Your task to perform on an android device: add a contact Image 0: 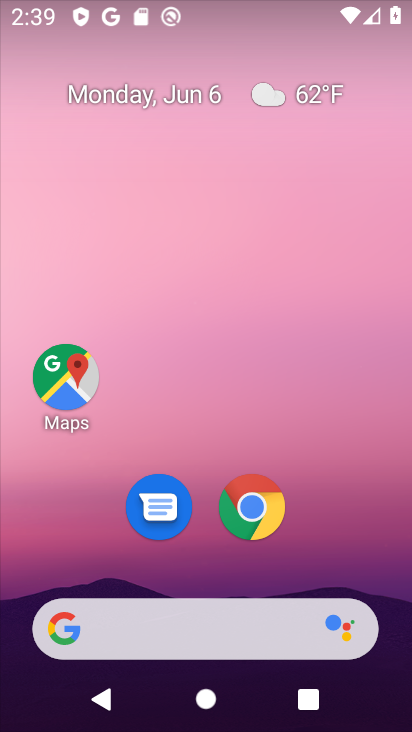
Step 0: drag from (387, 655) to (378, 111)
Your task to perform on an android device: add a contact Image 1: 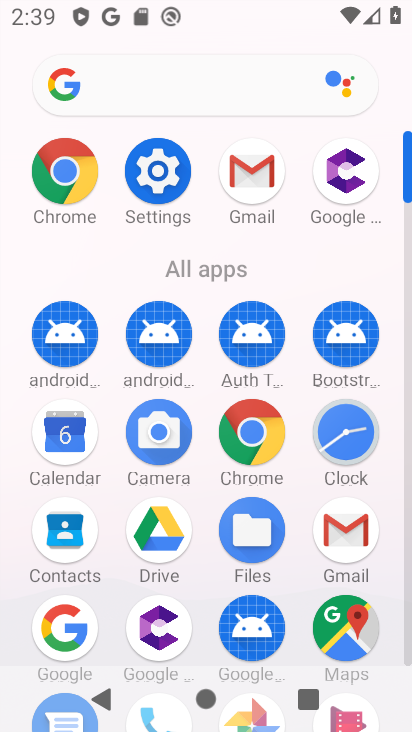
Step 1: click (68, 537)
Your task to perform on an android device: add a contact Image 2: 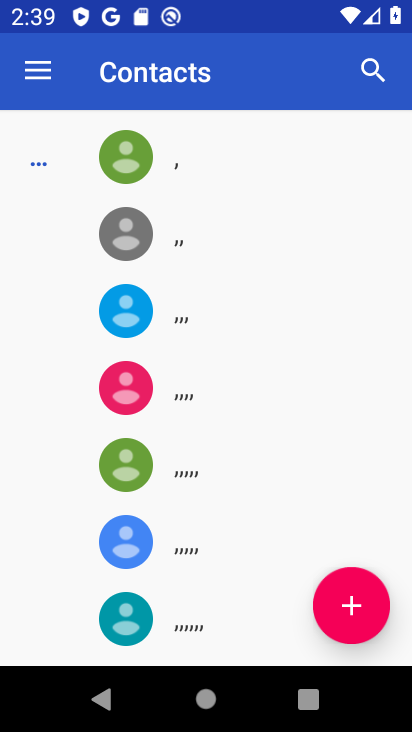
Step 2: click (338, 590)
Your task to perform on an android device: add a contact Image 3: 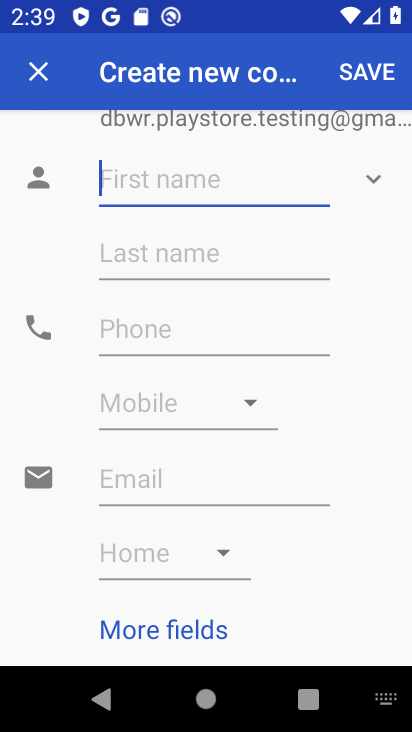
Step 3: type "jnjjbjbj"
Your task to perform on an android device: add a contact Image 4: 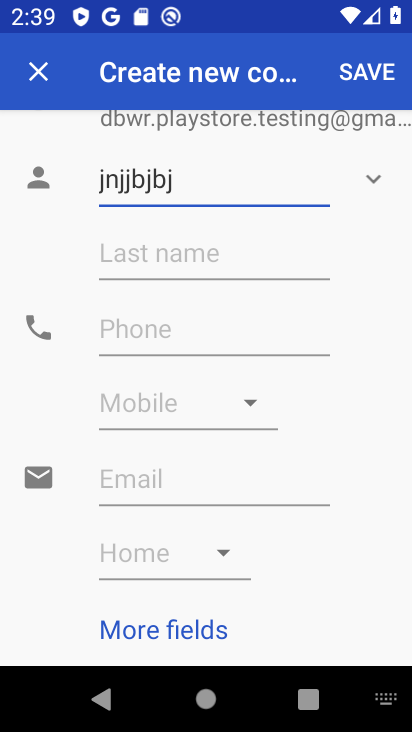
Step 4: click (224, 262)
Your task to perform on an android device: add a contact Image 5: 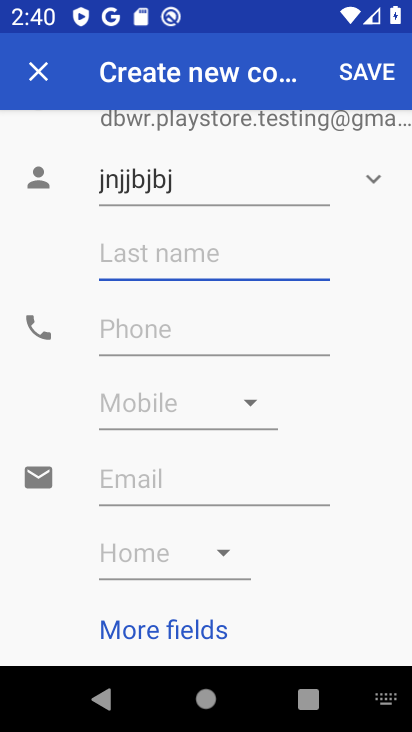
Step 5: type "jgbhb hj"
Your task to perform on an android device: add a contact Image 6: 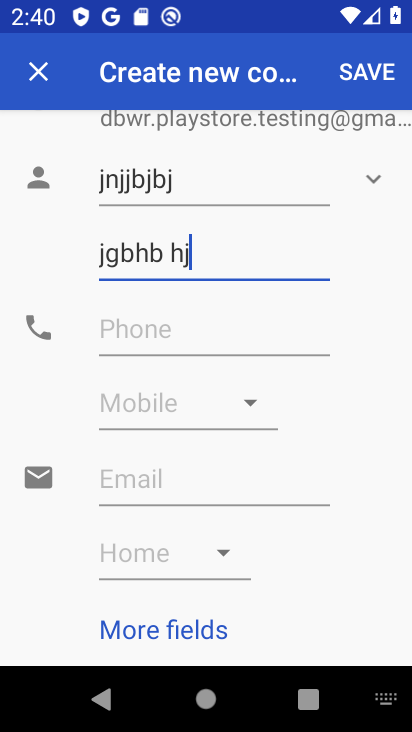
Step 6: click (217, 344)
Your task to perform on an android device: add a contact Image 7: 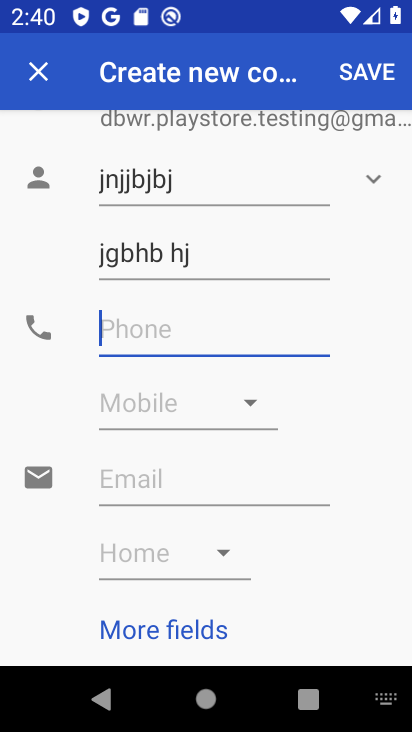
Step 7: type "5665767675667"
Your task to perform on an android device: add a contact Image 8: 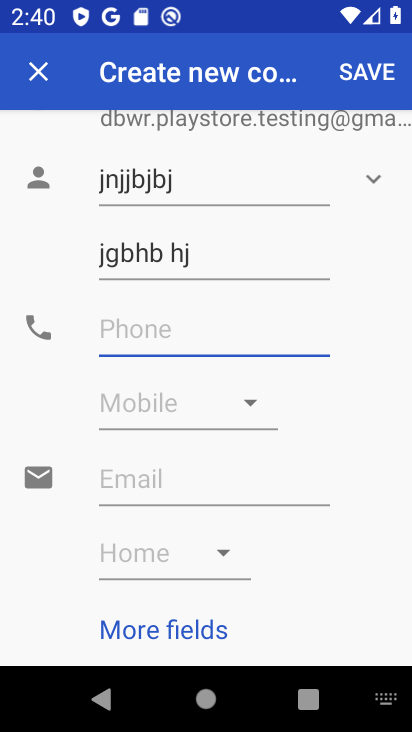
Step 8: click (380, 81)
Your task to perform on an android device: add a contact Image 9: 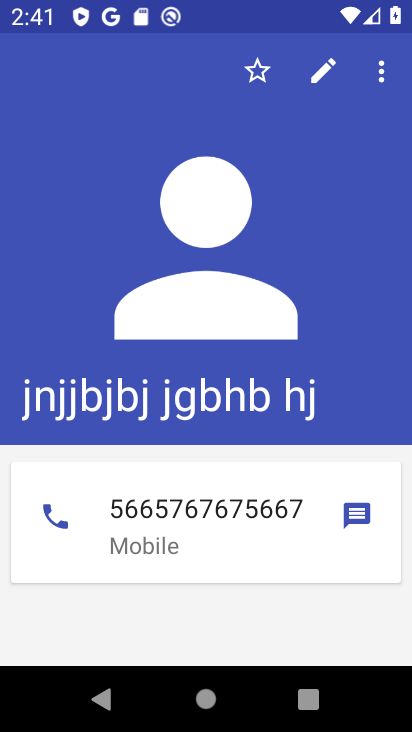
Step 9: task complete